Your task to perform on an android device: turn on showing notifications on the lock screen Image 0: 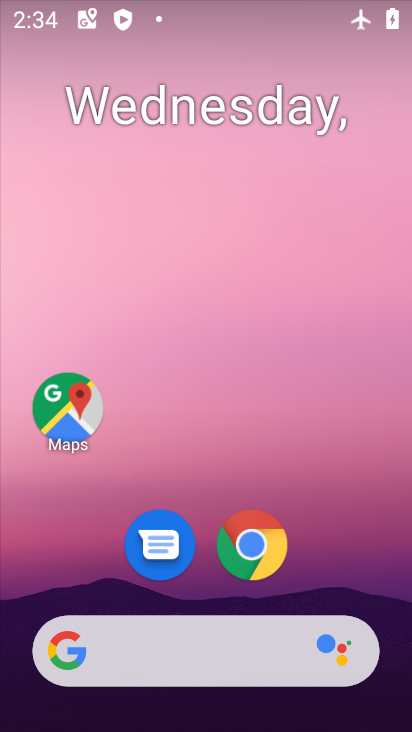
Step 0: drag from (365, 545) to (319, 136)
Your task to perform on an android device: turn on showing notifications on the lock screen Image 1: 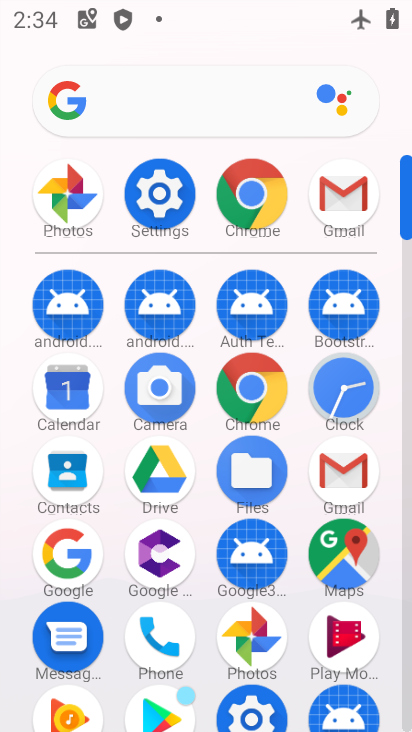
Step 1: click (177, 197)
Your task to perform on an android device: turn on showing notifications on the lock screen Image 2: 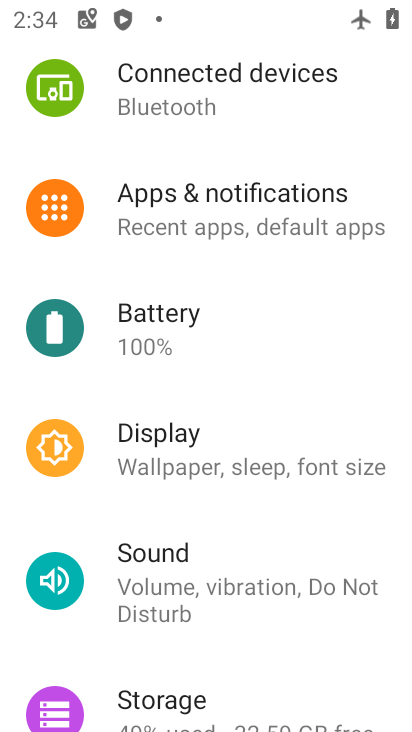
Step 2: click (241, 212)
Your task to perform on an android device: turn on showing notifications on the lock screen Image 3: 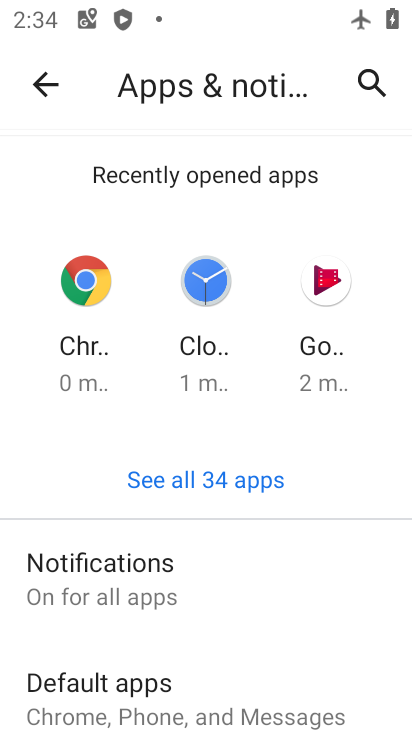
Step 3: drag from (259, 599) to (262, 325)
Your task to perform on an android device: turn on showing notifications on the lock screen Image 4: 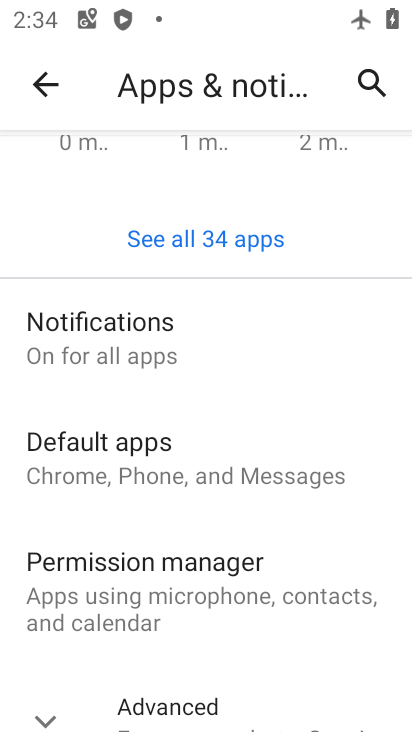
Step 4: click (152, 359)
Your task to perform on an android device: turn on showing notifications on the lock screen Image 5: 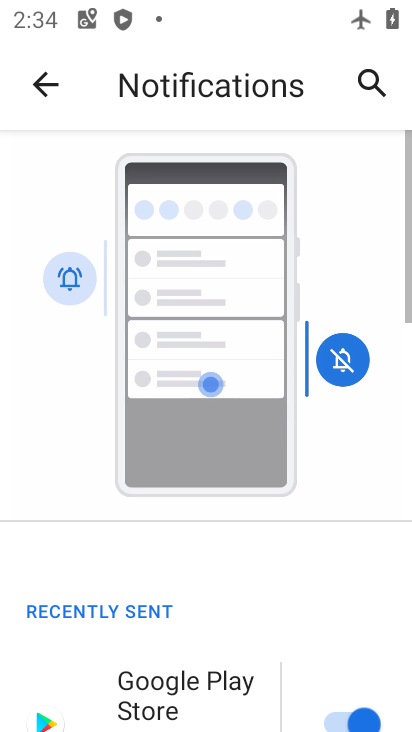
Step 5: drag from (229, 588) to (237, 158)
Your task to perform on an android device: turn on showing notifications on the lock screen Image 6: 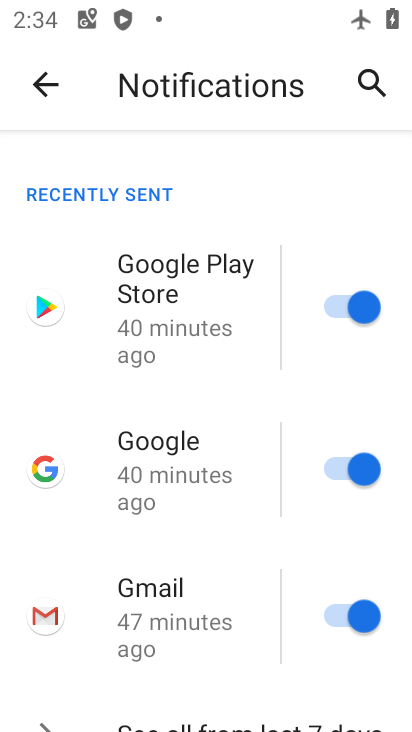
Step 6: drag from (206, 596) to (263, 232)
Your task to perform on an android device: turn on showing notifications on the lock screen Image 7: 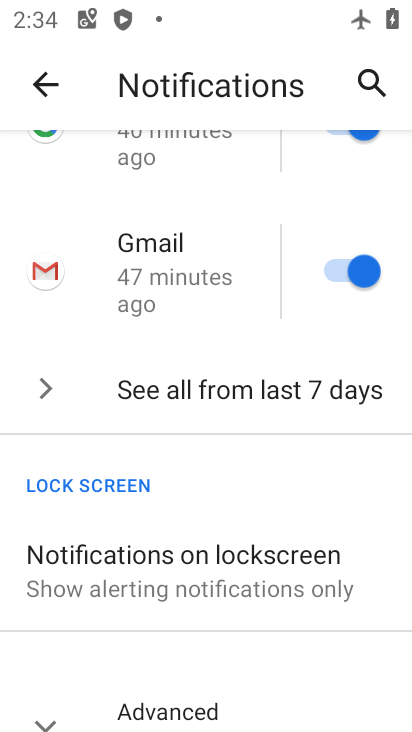
Step 7: click (223, 559)
Your task to perform on an android device: turn on showing notifications on the lock screen Image 8: 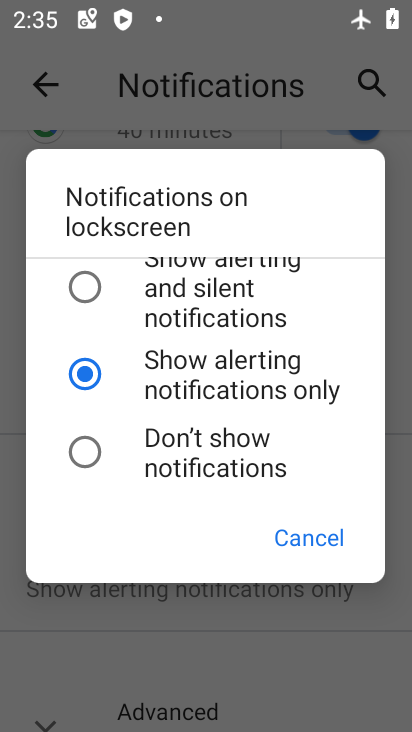
Step 8: task complete